Your task to perform on an android device: Go to accessibility settings Image 0: 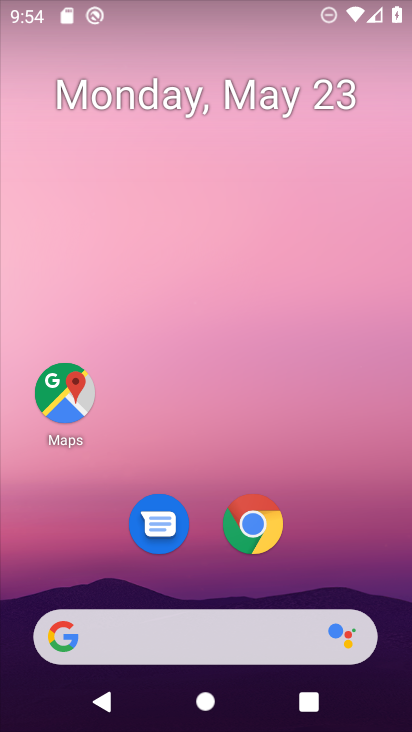
Step 0: drag from (209, 435) to (278, 56)
Your task to perform on an android device: Go to accessibility settings Image 1: 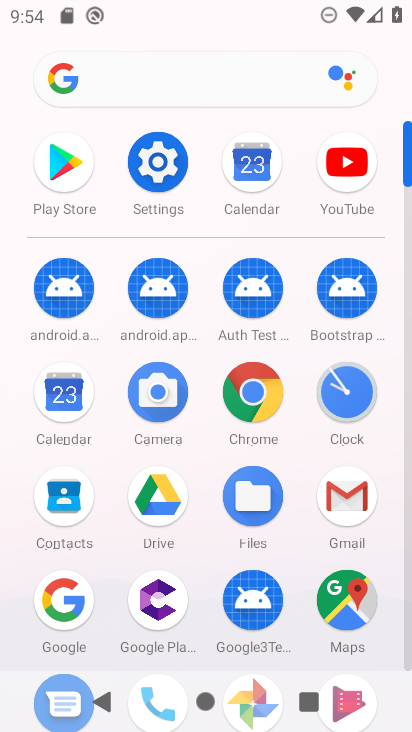
Step 1: click (179, 165)
Your task to perform on an android device: Go to accessibility settings Image 2: 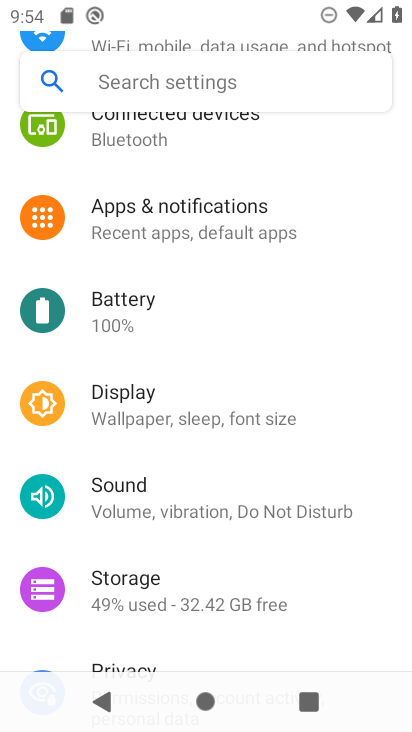
Step 2: drag from (237, 467) to (260, 121)
Your task to perform on an android device: Go to accessibility settings Image 3: 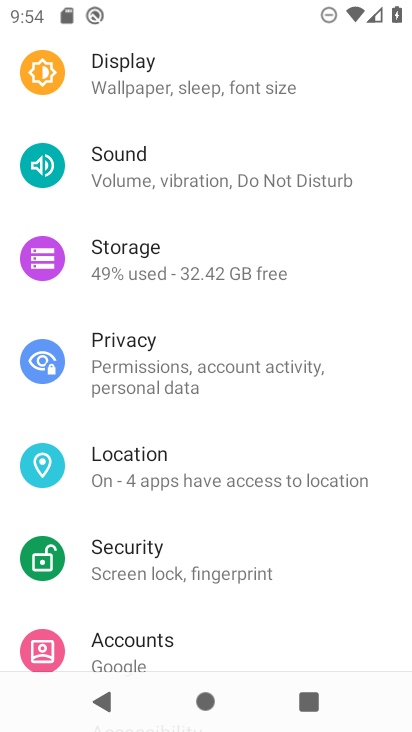
Step 3: drag from (250, 533) to (270, 230)
Your task to perform on an android device: Go to accessibility settings Image 4: 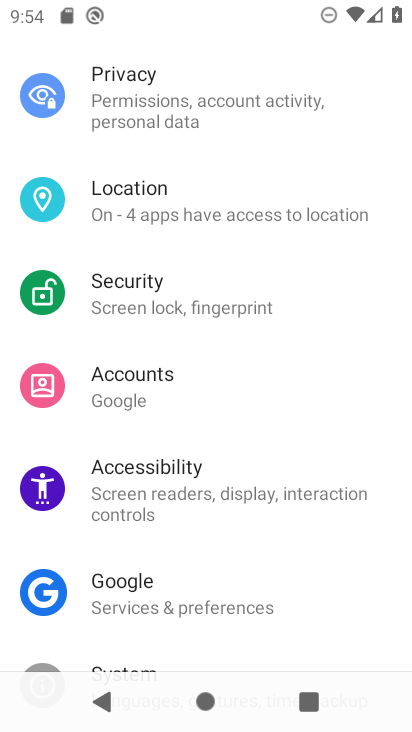
Step 4: click (184, 473)
Your task to perform on an android device: Go to accessibility settings Image 5: 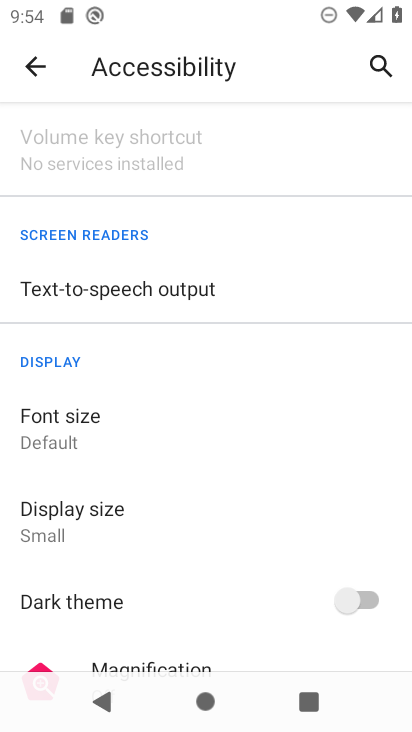
Step 5: task complete